Your task to perform on an android device: open app "Pinterest" (install if not already installed) Image 0: 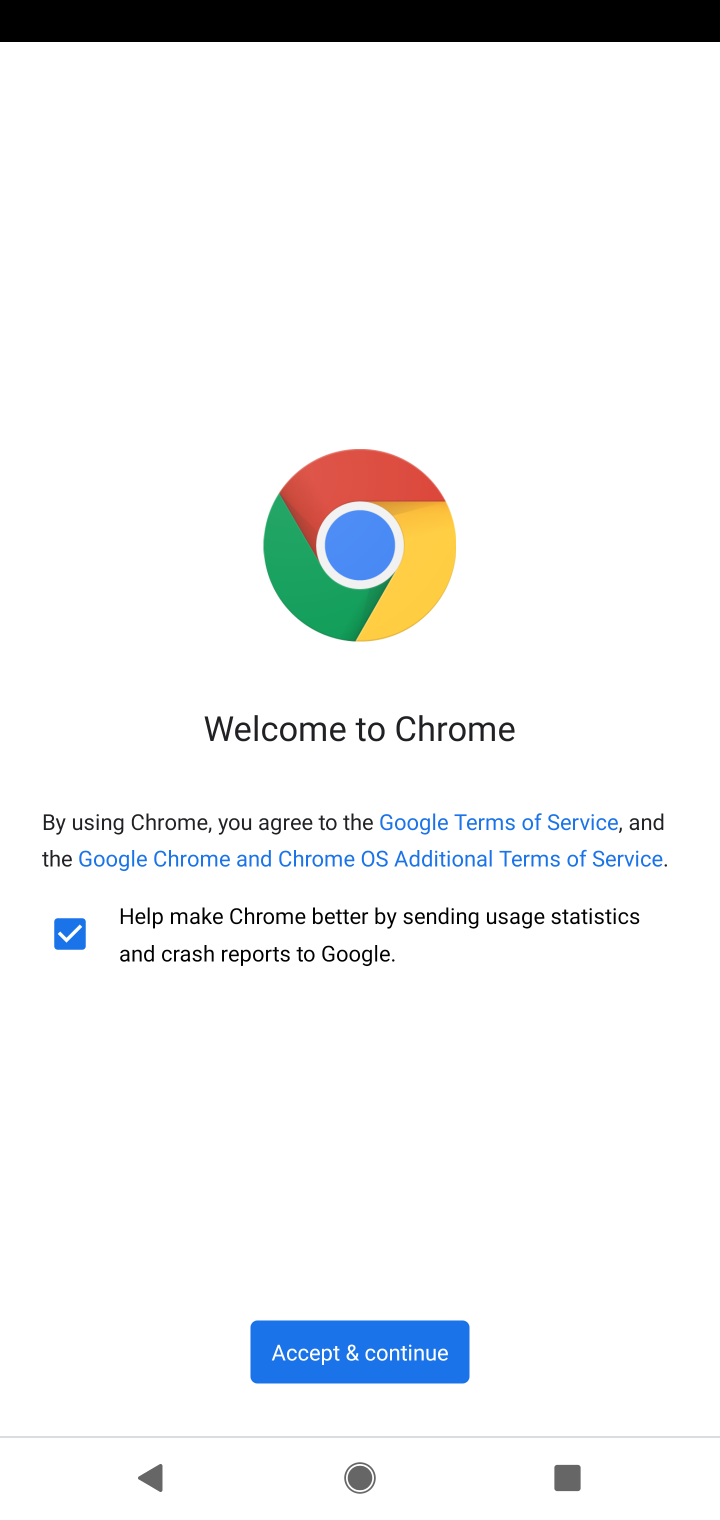
Step 0: press home button
Your task to perform on an android device: open app "Pinterest" (install if not already installed) Image 1: 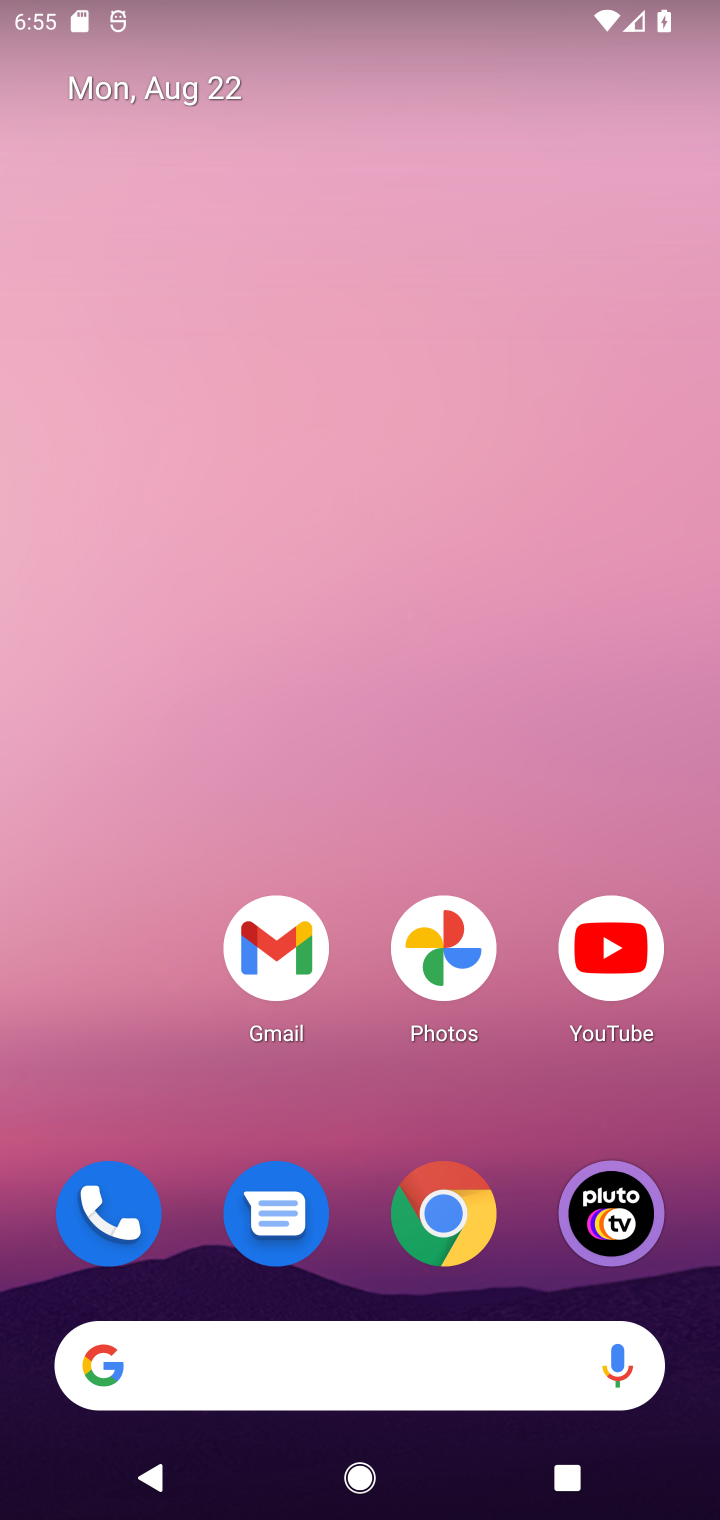
Step 1: drag from (354, 1125) to (239, 52)
Your task to perform on an android device: open app "Pinterest" (install if not already installed) Image 2: 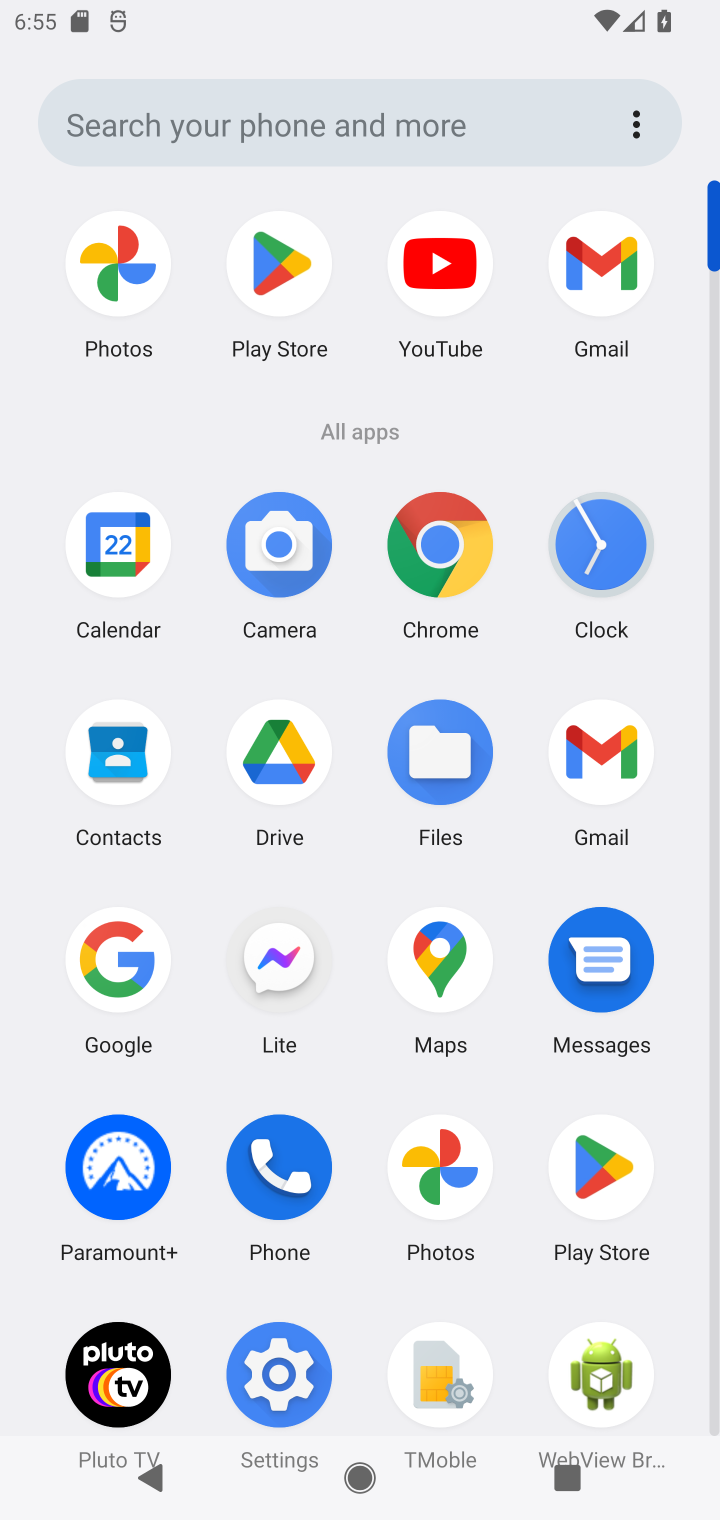
Step 2: click (265, 241)
Your task to perform on an android device: open app "Pinterest" (install if not already installed) Image 3: 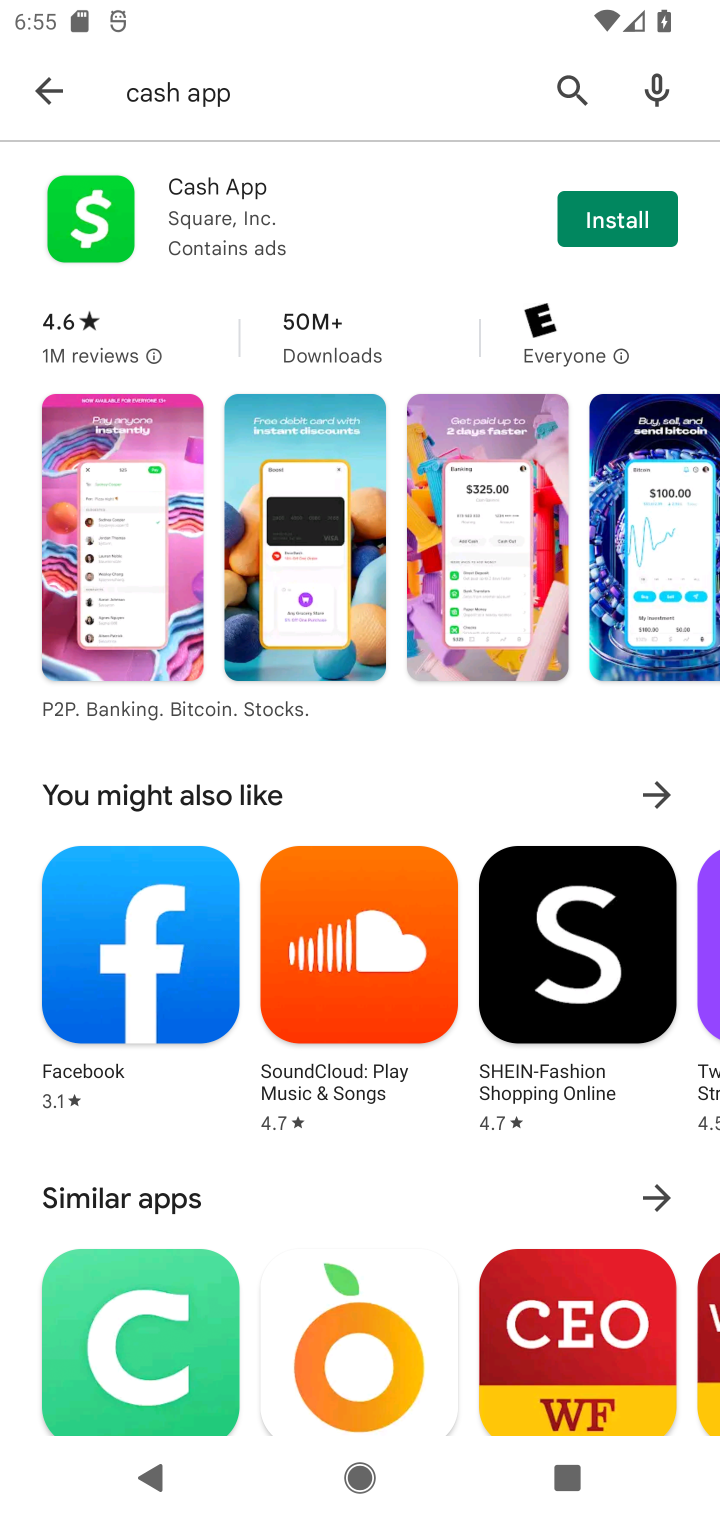
Step 3: click (563, 101)
Your task to perform on an android device: open app "Pinterest" (install if not already installed) Image 4: 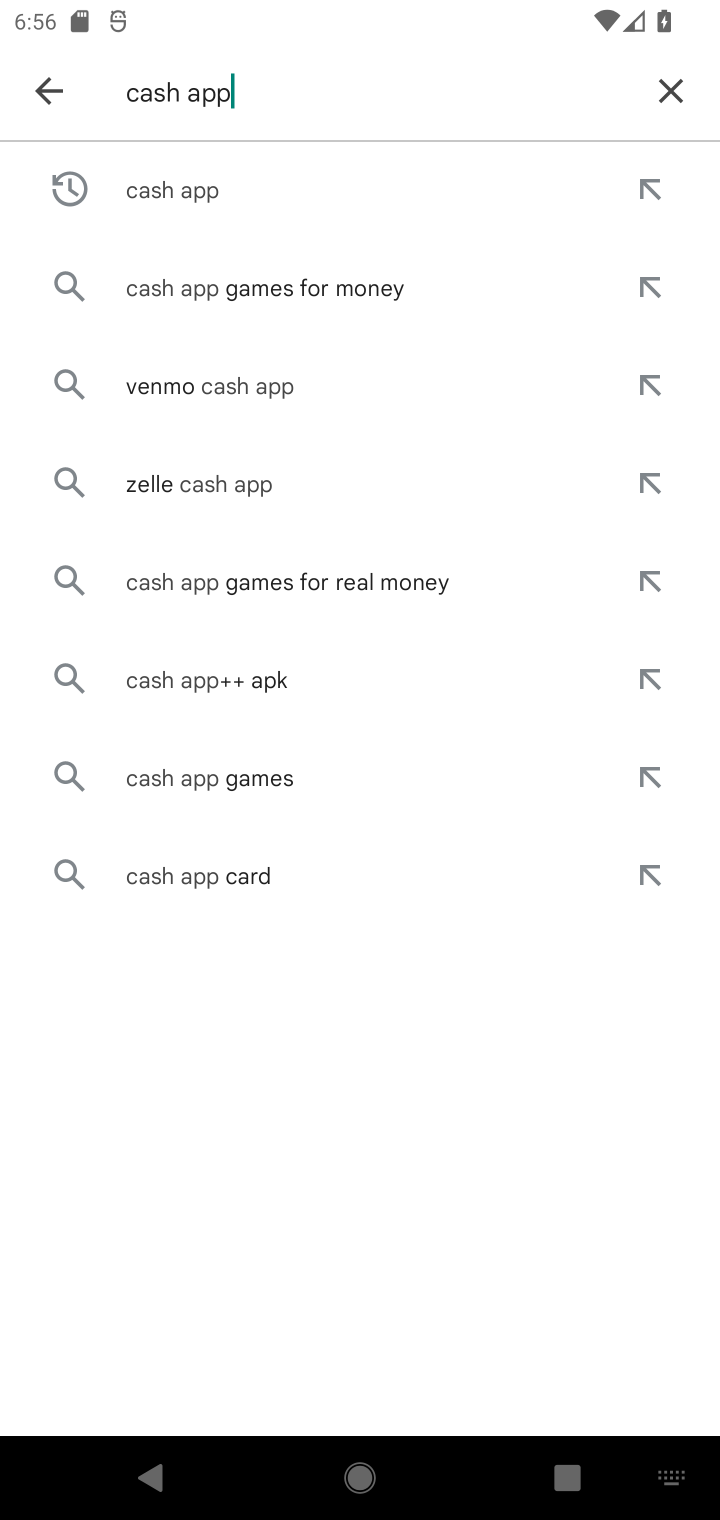
Step 4: click (668, 84)
Your task to perform on an android device: open app "Pinterest" (install if not already installed) Image 5: 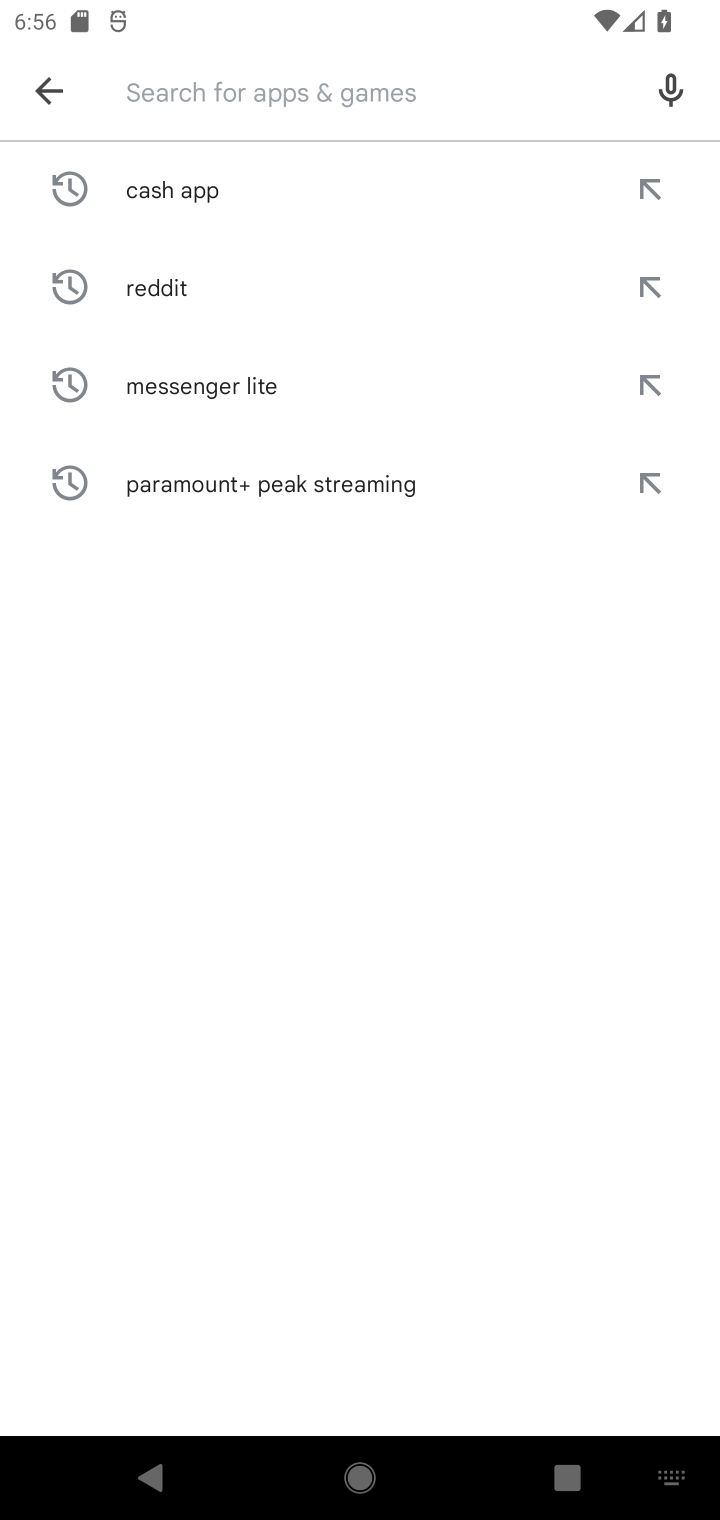
Step 5: type "Pinterest"
Your task to perform on an android device: open app "Pinterest" (install if not already installed) Image 6: 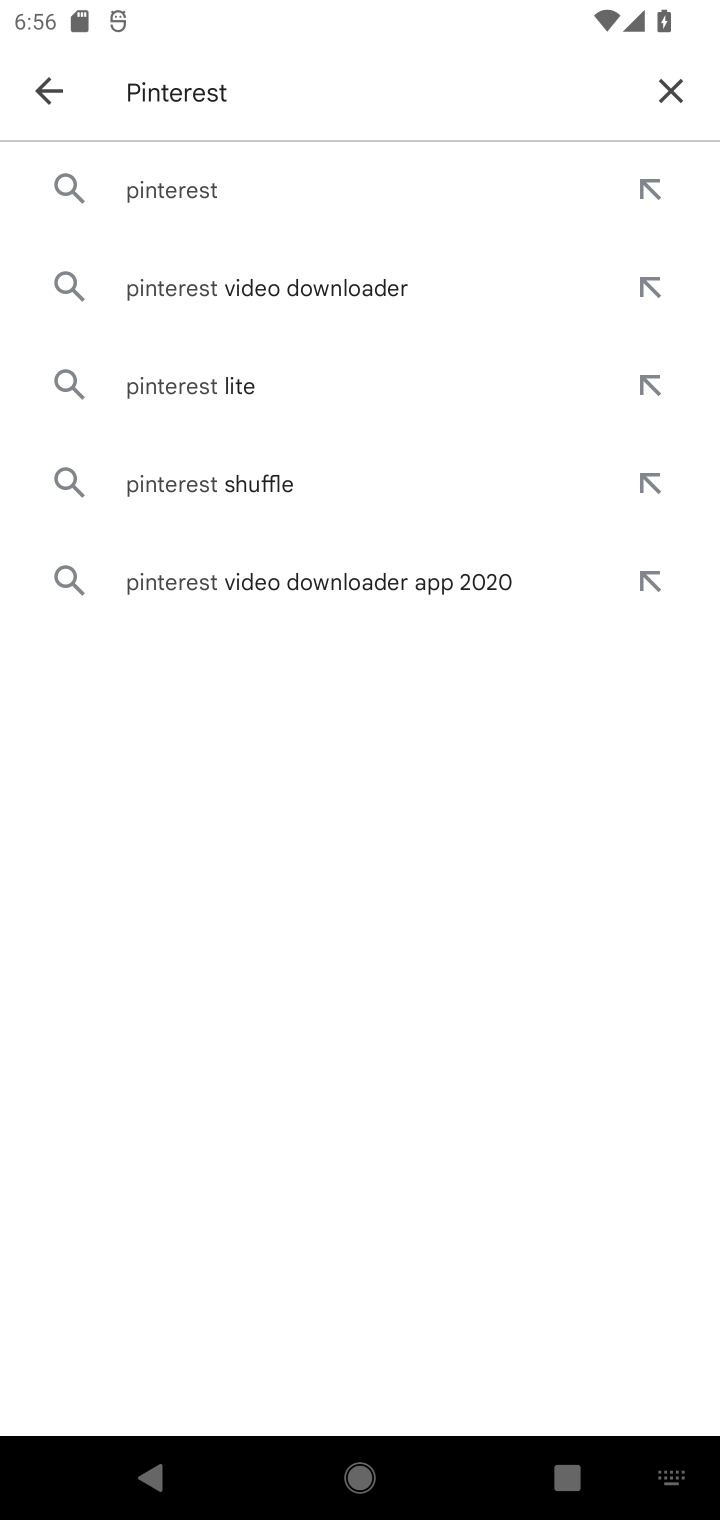
Step 6: click (186, 191)
Your task to perform on an android device: open app "Pinterest" (install if not already installed) Image 7: 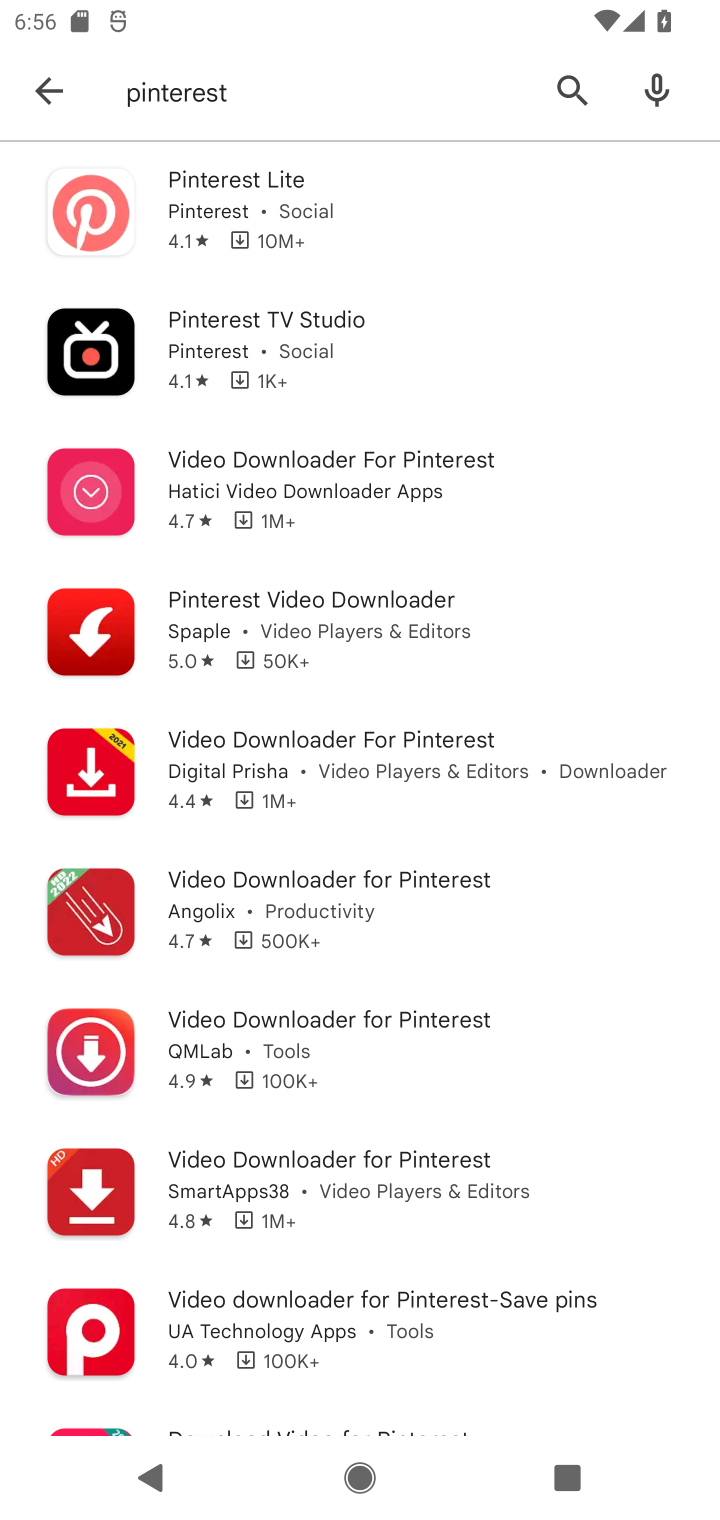
Step 7: click (278, 181)
Your task to perform on an android device: open app "Pinterest" (install if not already installed) Image 8: 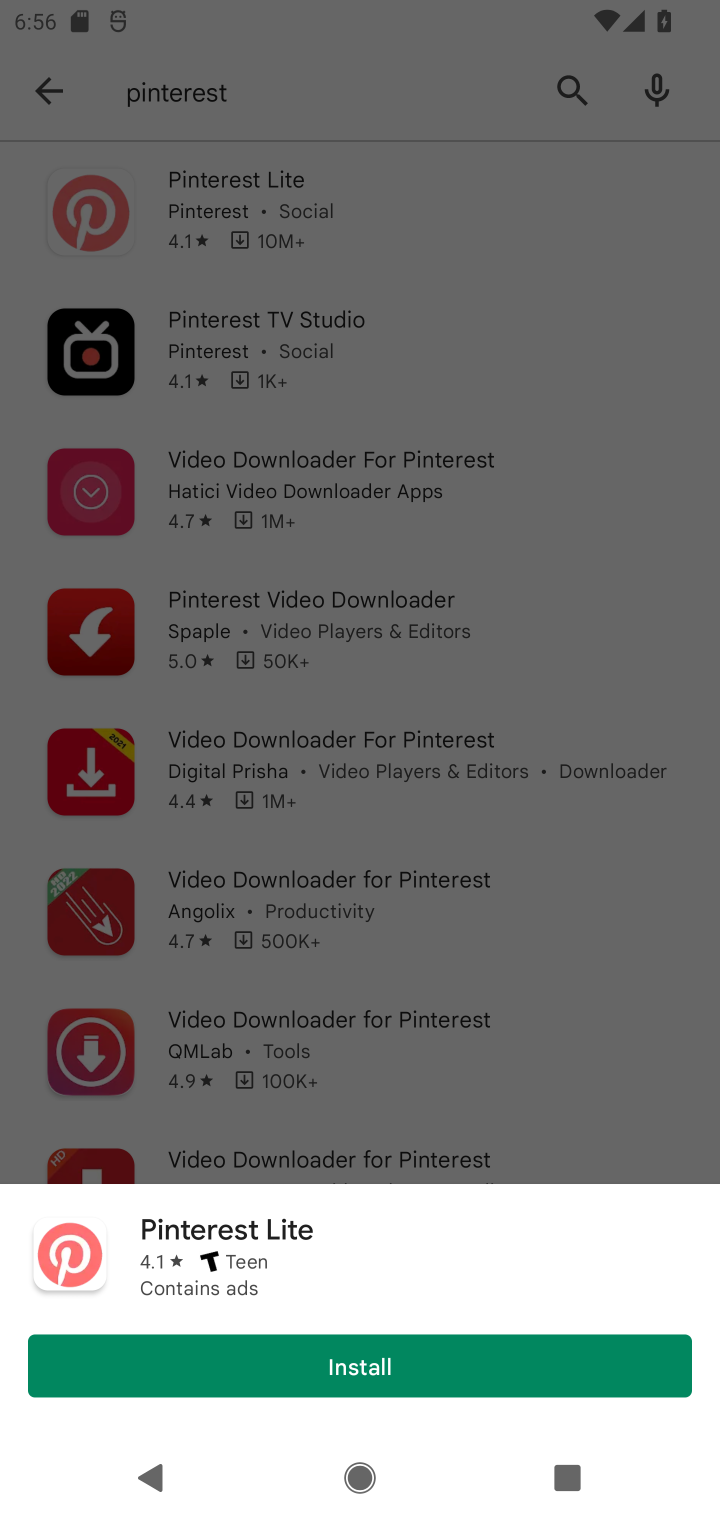
Step 8: click (355, 1355)
Your task to perform on an android device: open app "Pinterest" (install if not already installed) Image 9: 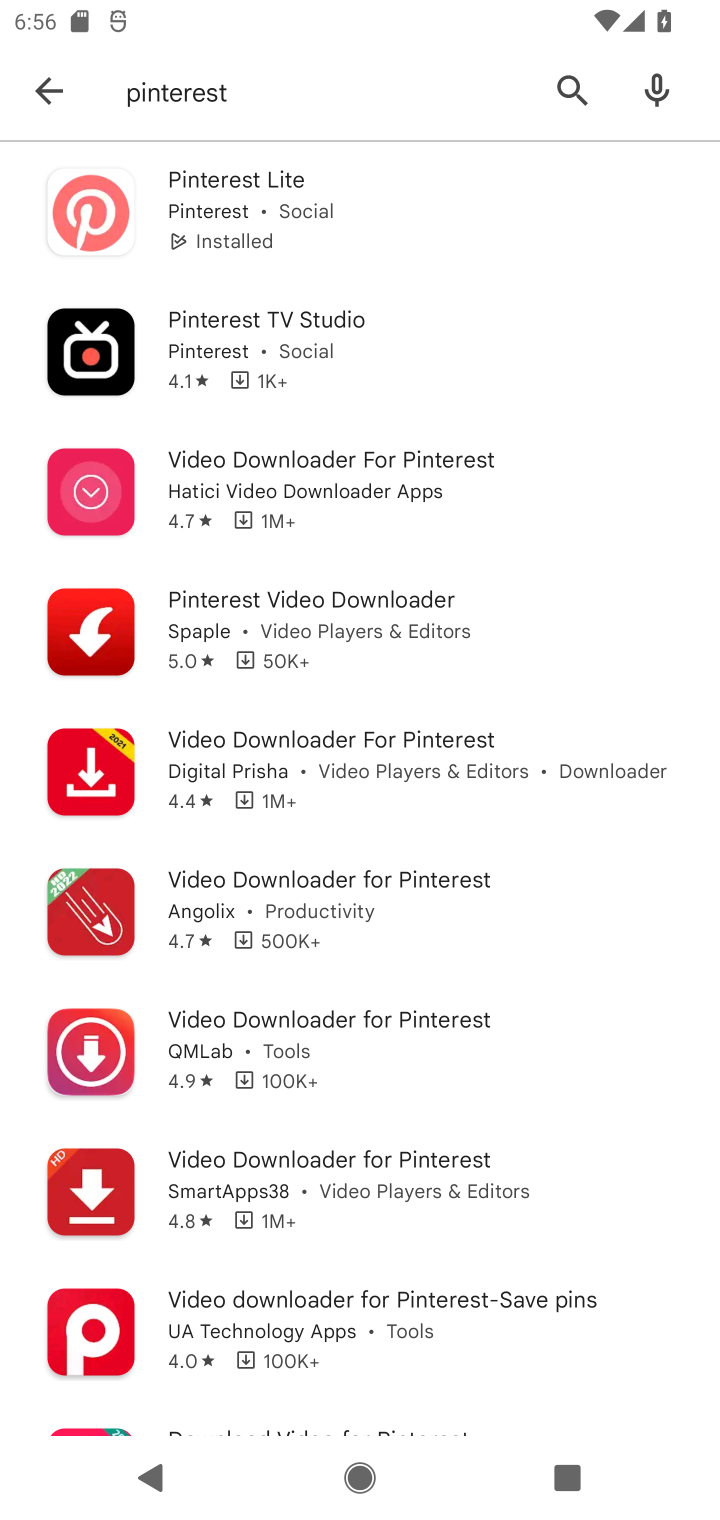
Step 9: task complete